Your task to perform on an android device: Set the phone to "Do not disturb". Image 0: 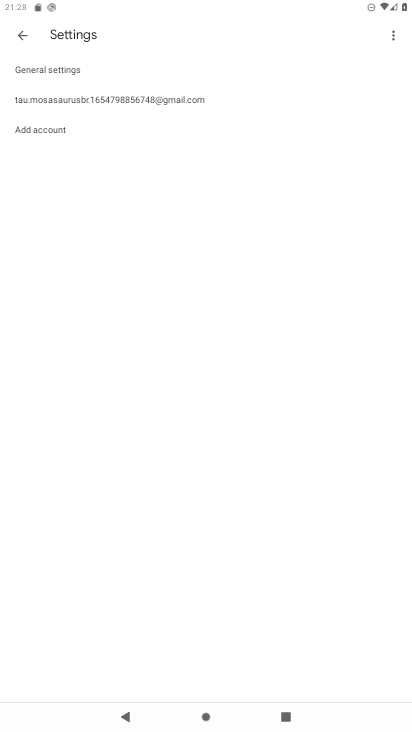
Step 0: press home button
Your task to perform on an android device: Set the phone to "Do not disturb". Image 1: 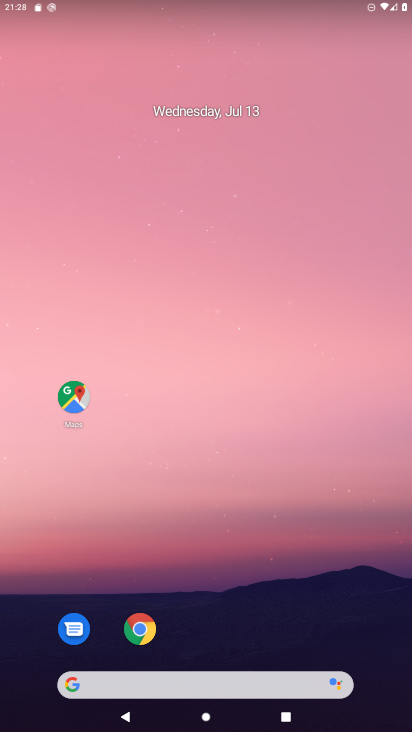
Step 1: task complete